Your task to perform on an android device: Add razer nari to the cart on amazon.com, then select checkout. Image 0: 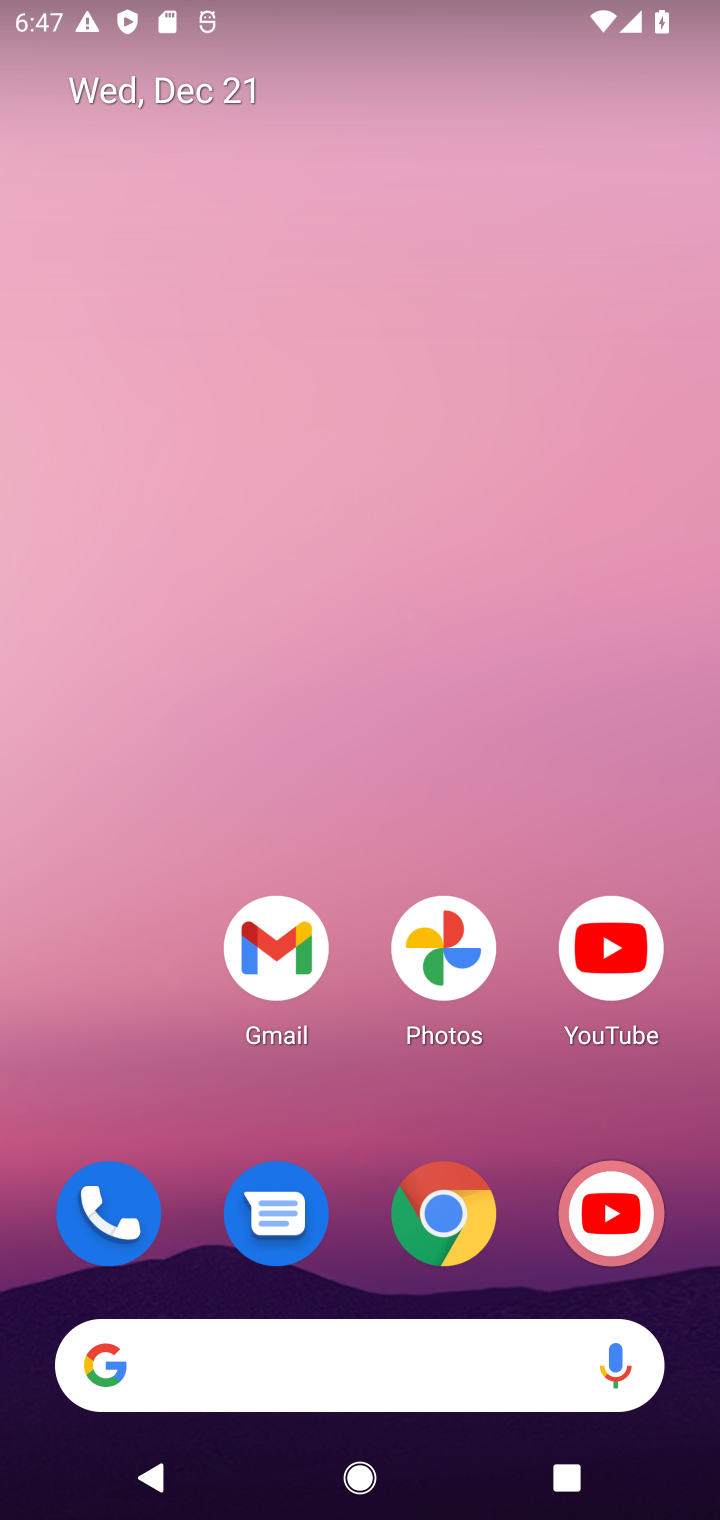
Step 0: click (446, 1219)
Your task to perform on an android device: Add razer nari to the cart on amazon.com, then select checkout. Image 1: 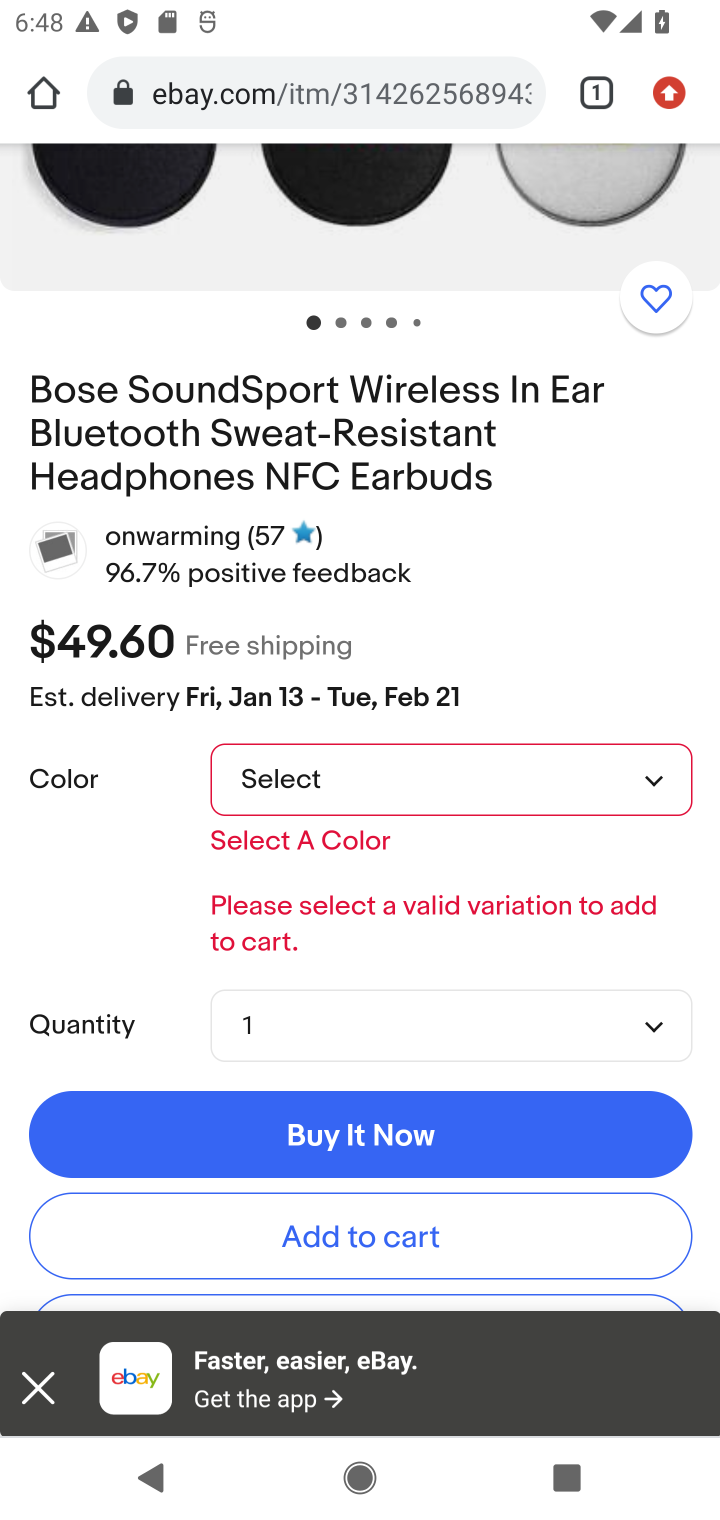
Step 1: click (301, 80)
Your task to perform on an android device: Add razer nari to the cart on amazon.com, then select checkout. Image 2: 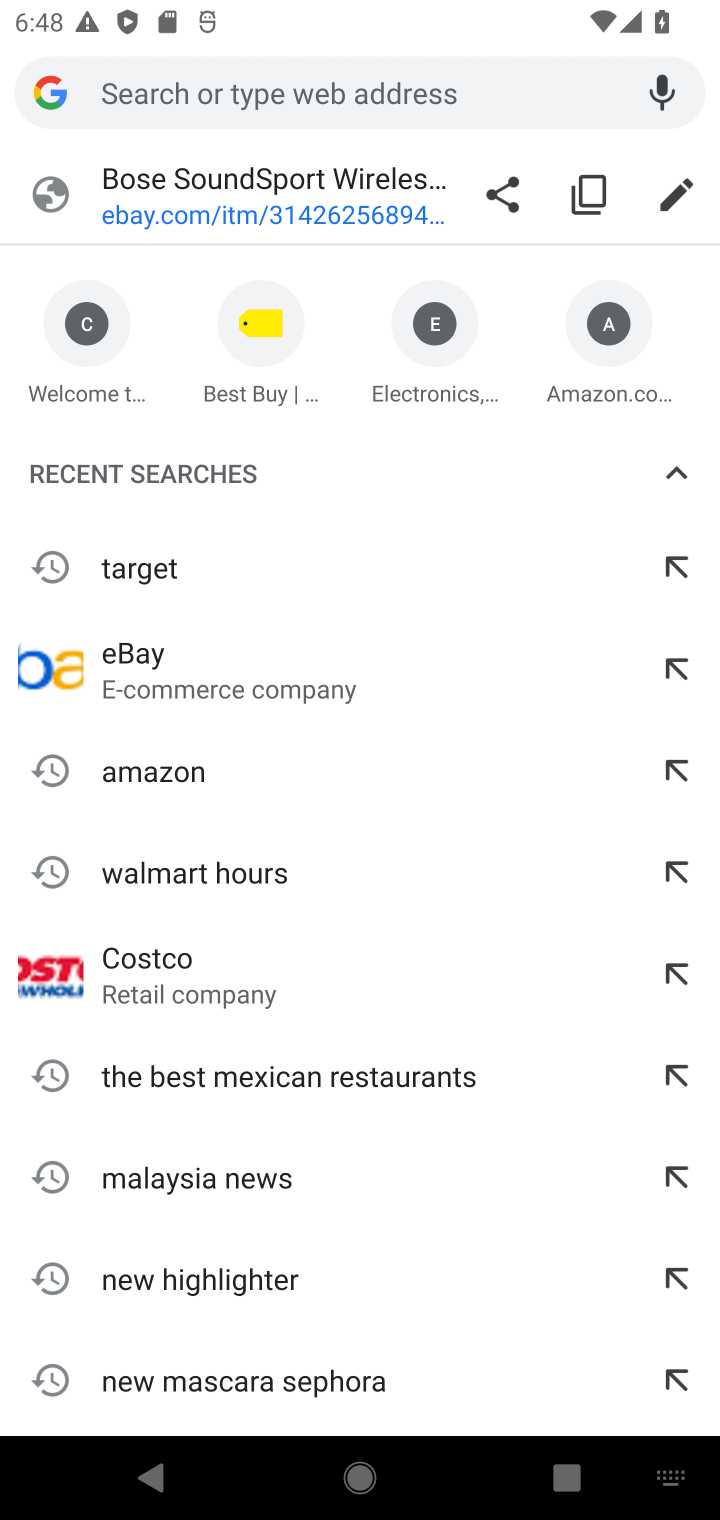
Step 2: type "amazon"
Your task to perform on an android device: Add razer nari to the cart on amazon.com, then select checkout. Image 3: 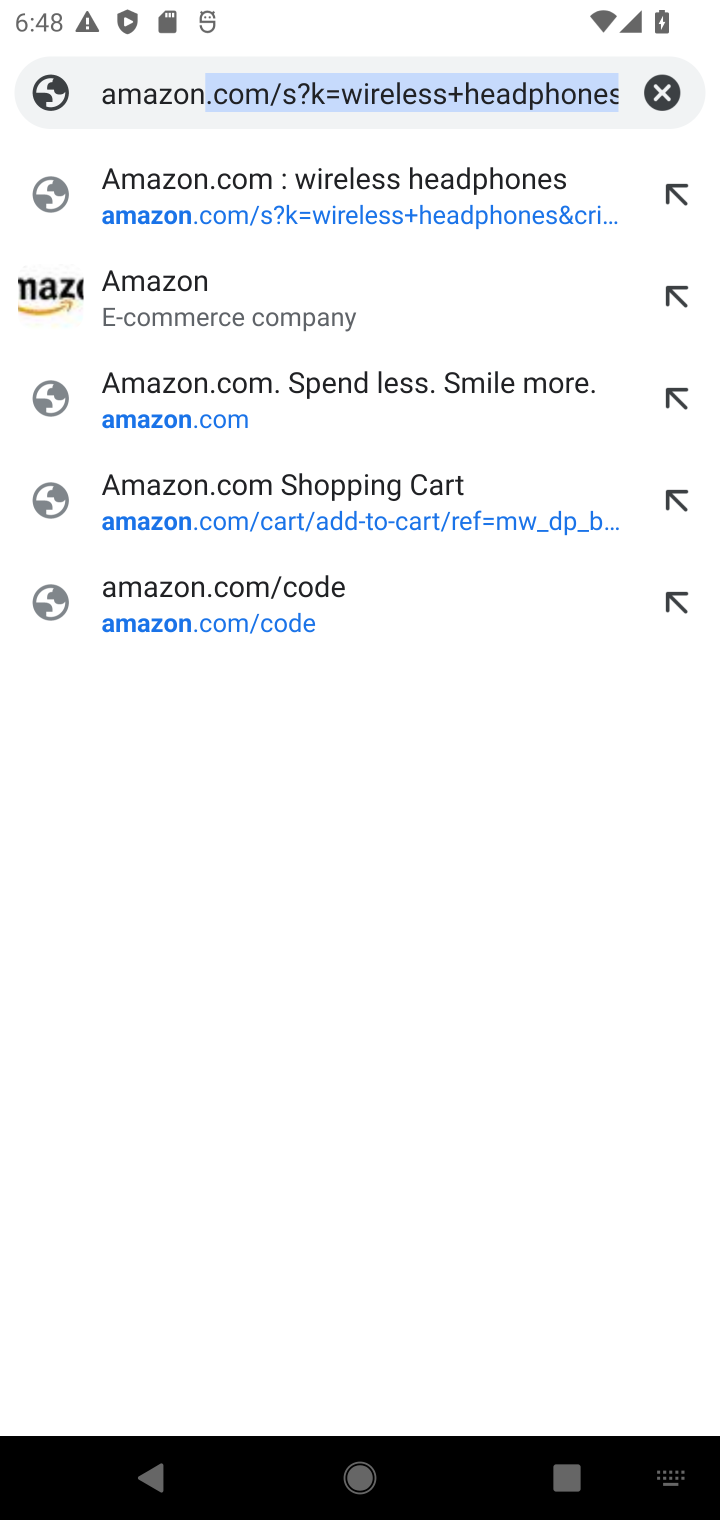
Step 3: click (122, 234)
Your task to perform on an android device: Add razer nari to the cart on amazon.com, then select checkout. Image 4: 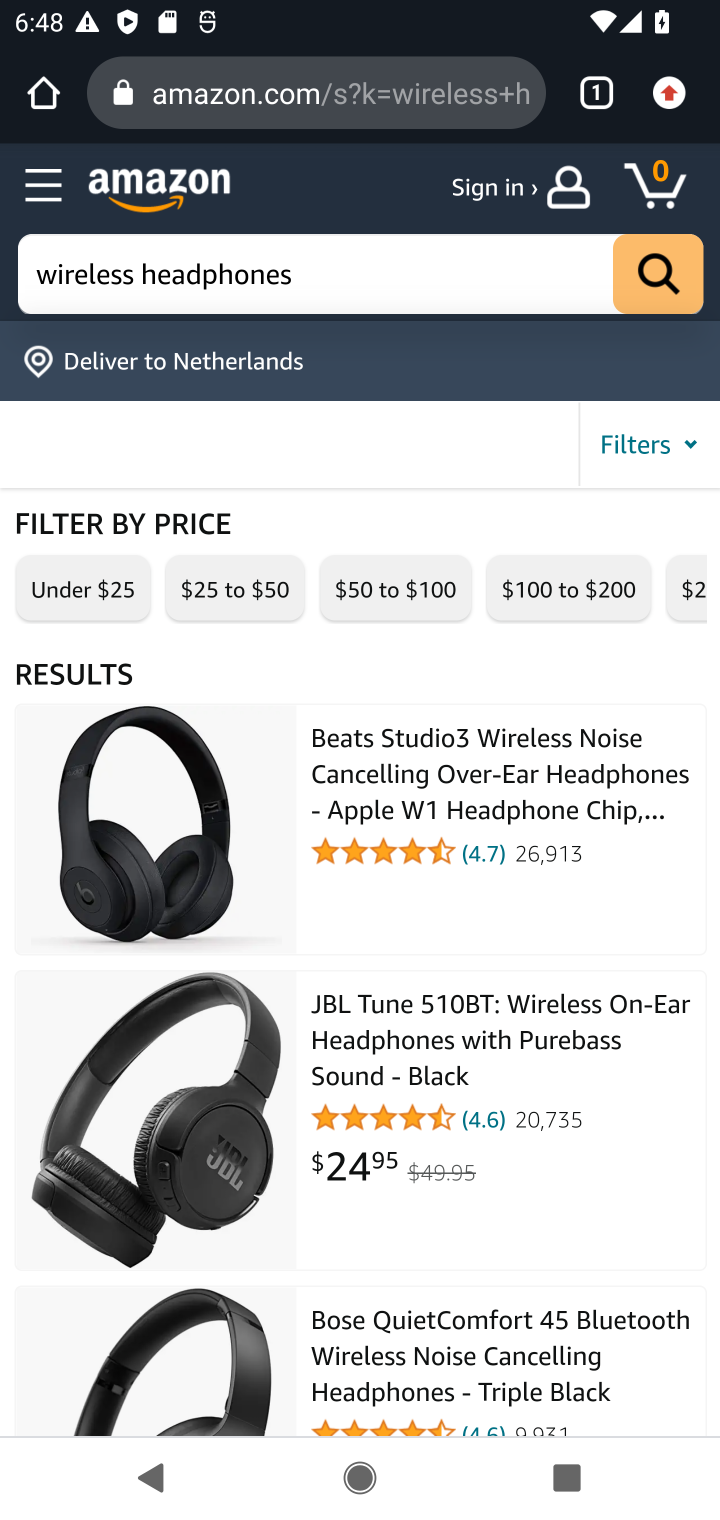
Step 4: click (456, 736)
Your task to perform on an android device: Add razer nari to the cart on amazon.com, then select checkout. Image 5: 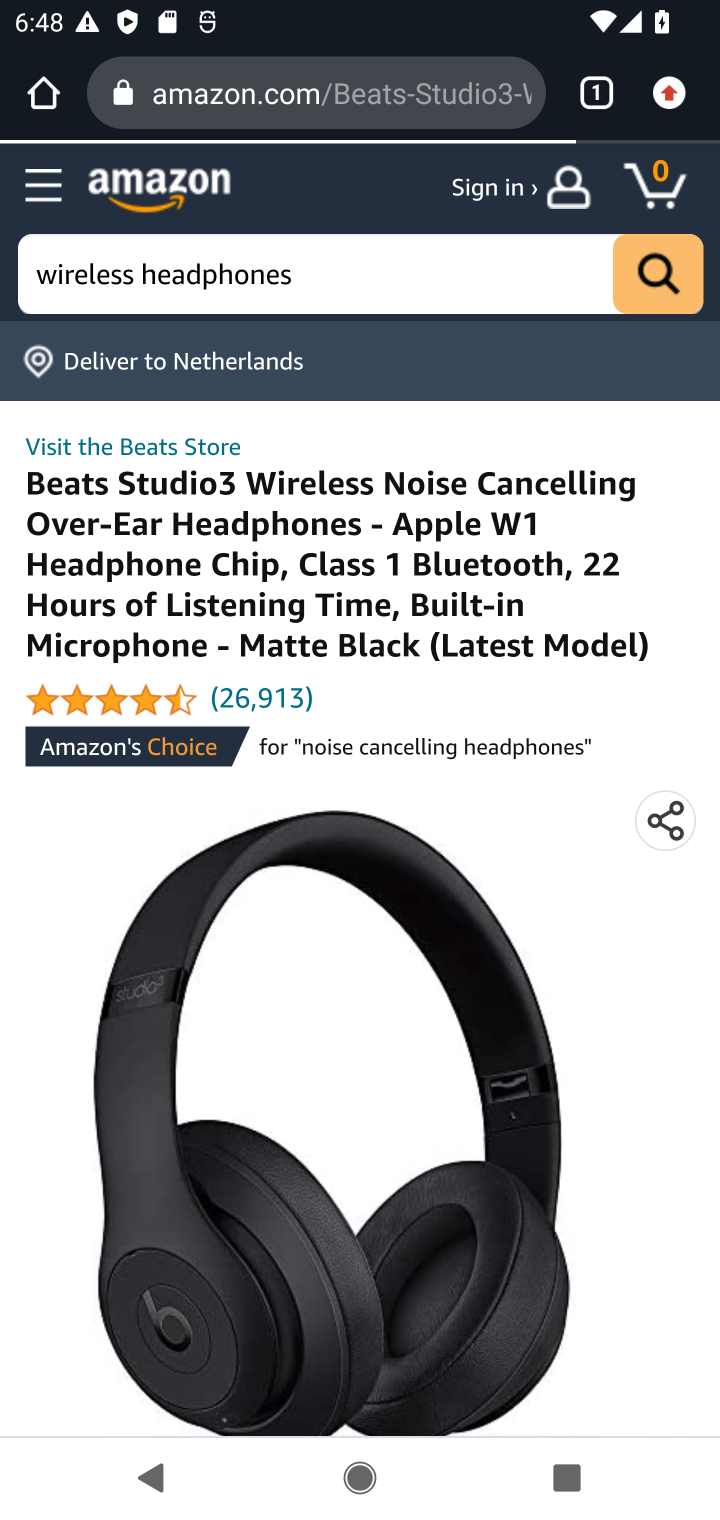
Step 5: drag from (400, 1027) to (469, 249)
Your task to perform on an android device: Add razer nari to the cart on amazon.com, then select checkout. Image 6: 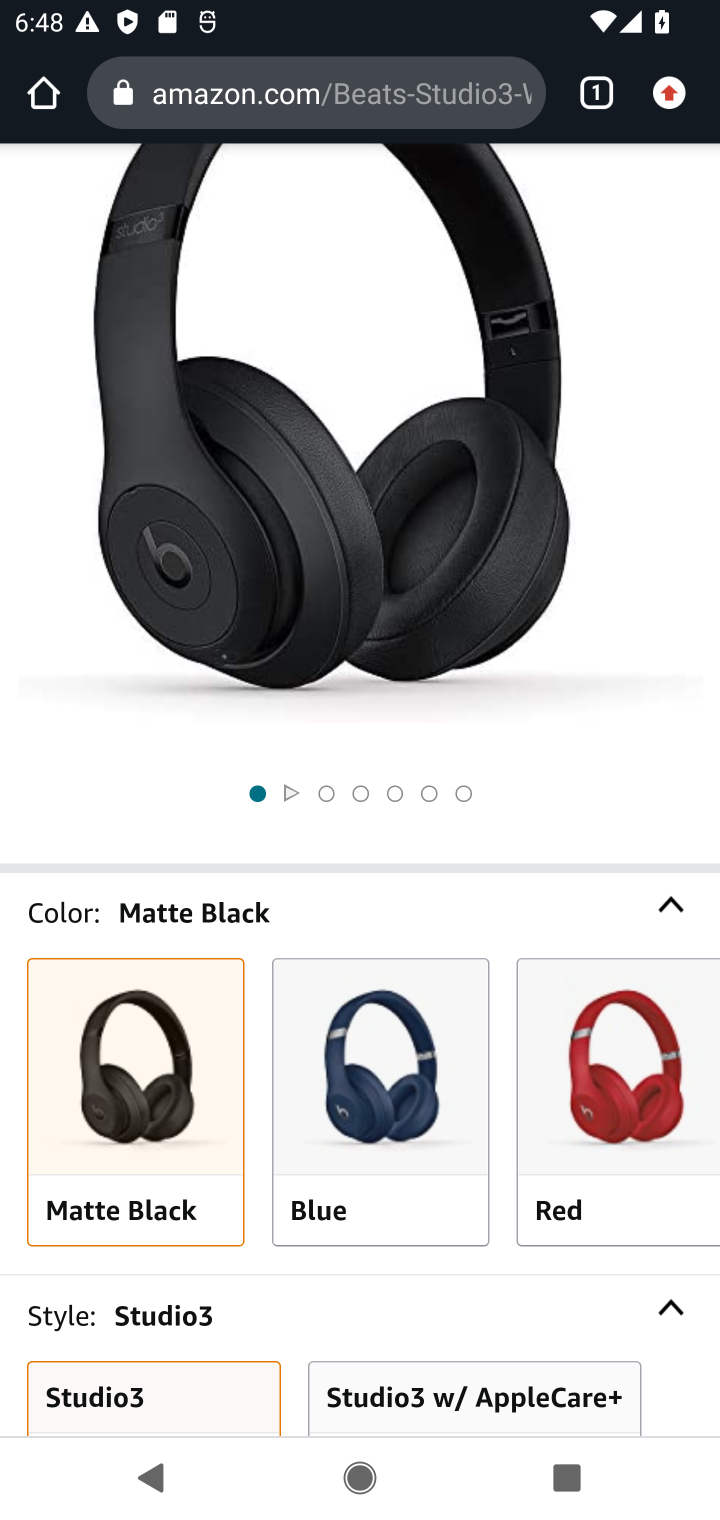
Step 6: drag from (358, 1303) to (490, 325)
Your task to perform on an android device: Add razer nari to the cart on amazon.com, then select checkout. Image 7: 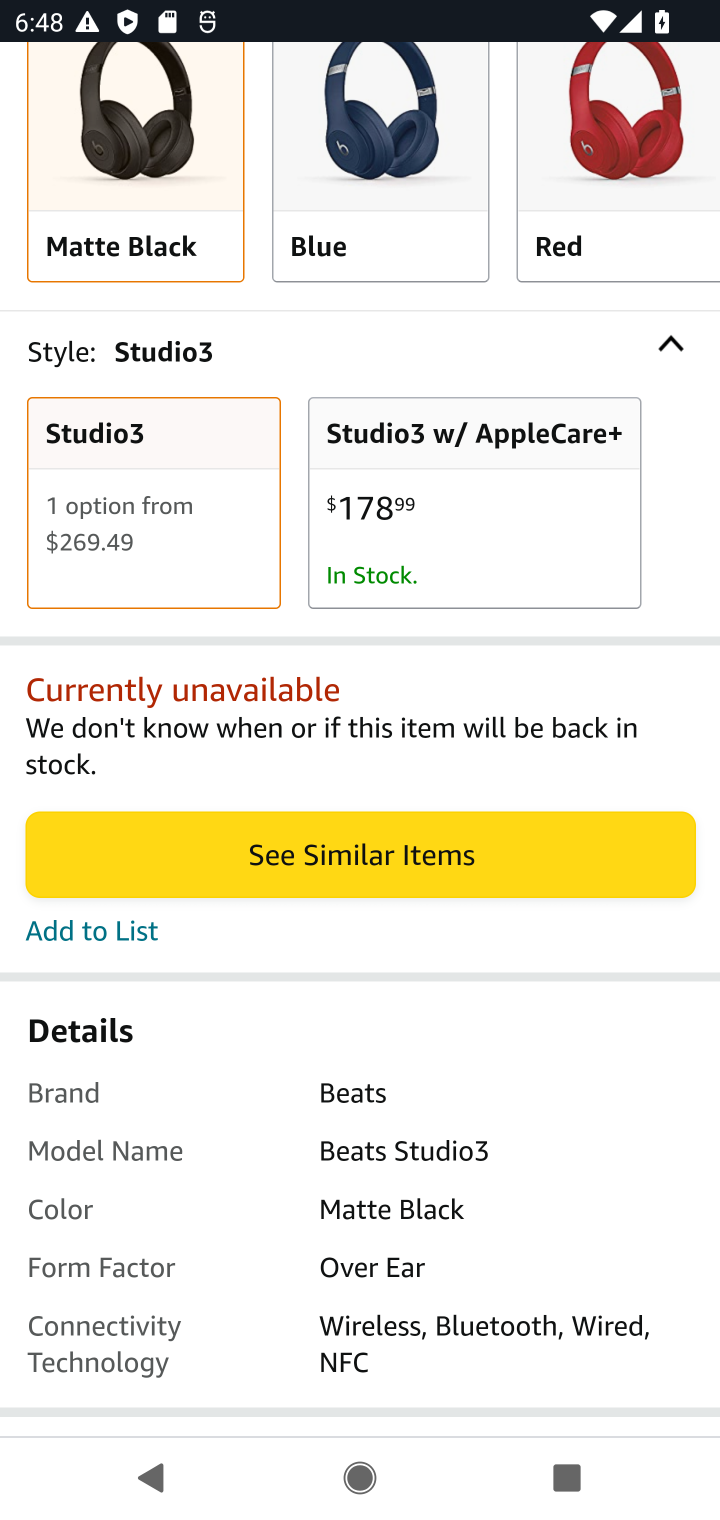
Step 7: click (386, 846)
Your task to perform on an android device: Add razer nari to the cart on amazon.com, then select checkout. Image 8: 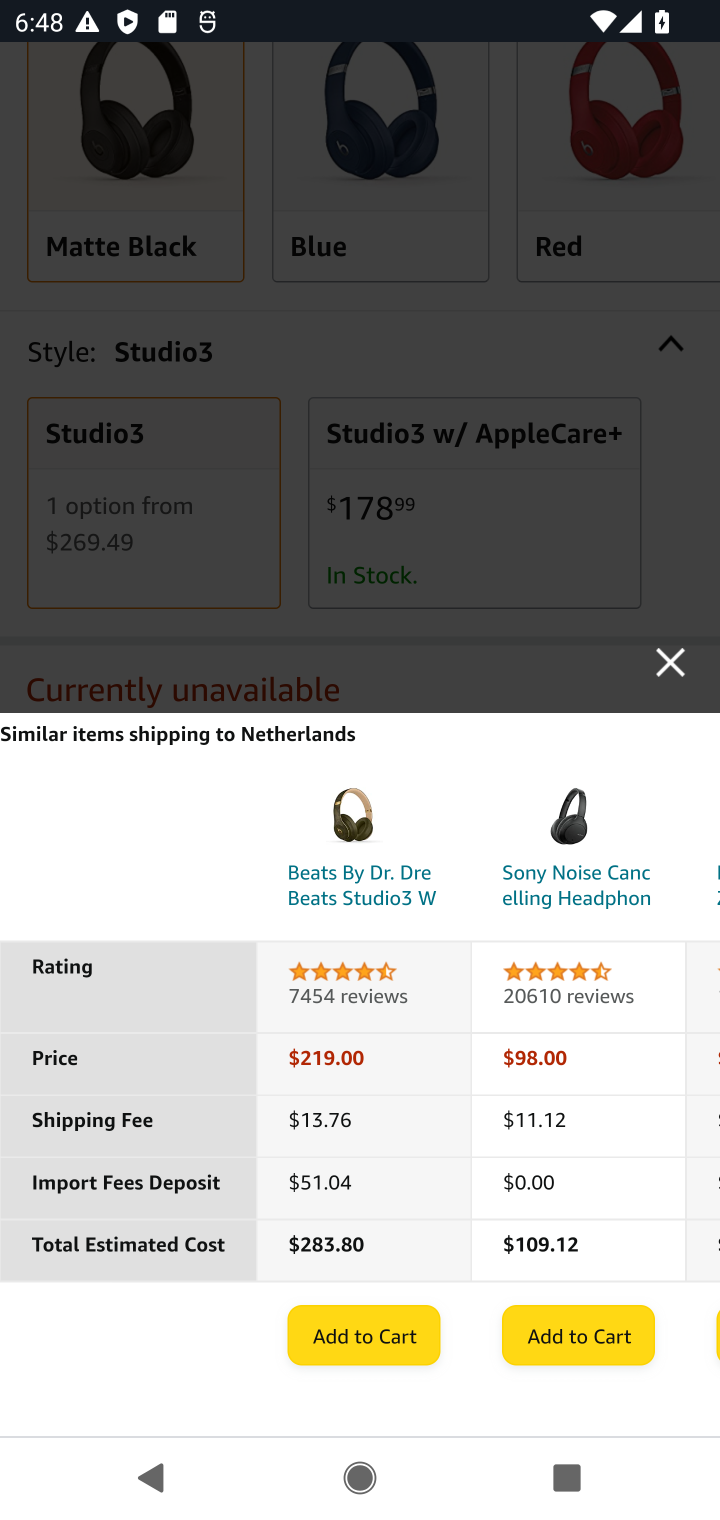
Step 8: click (425, 1326)
Your task to perform on an android device: Add razer nari to the cart on amazon.com, then select checkout. Image 9: 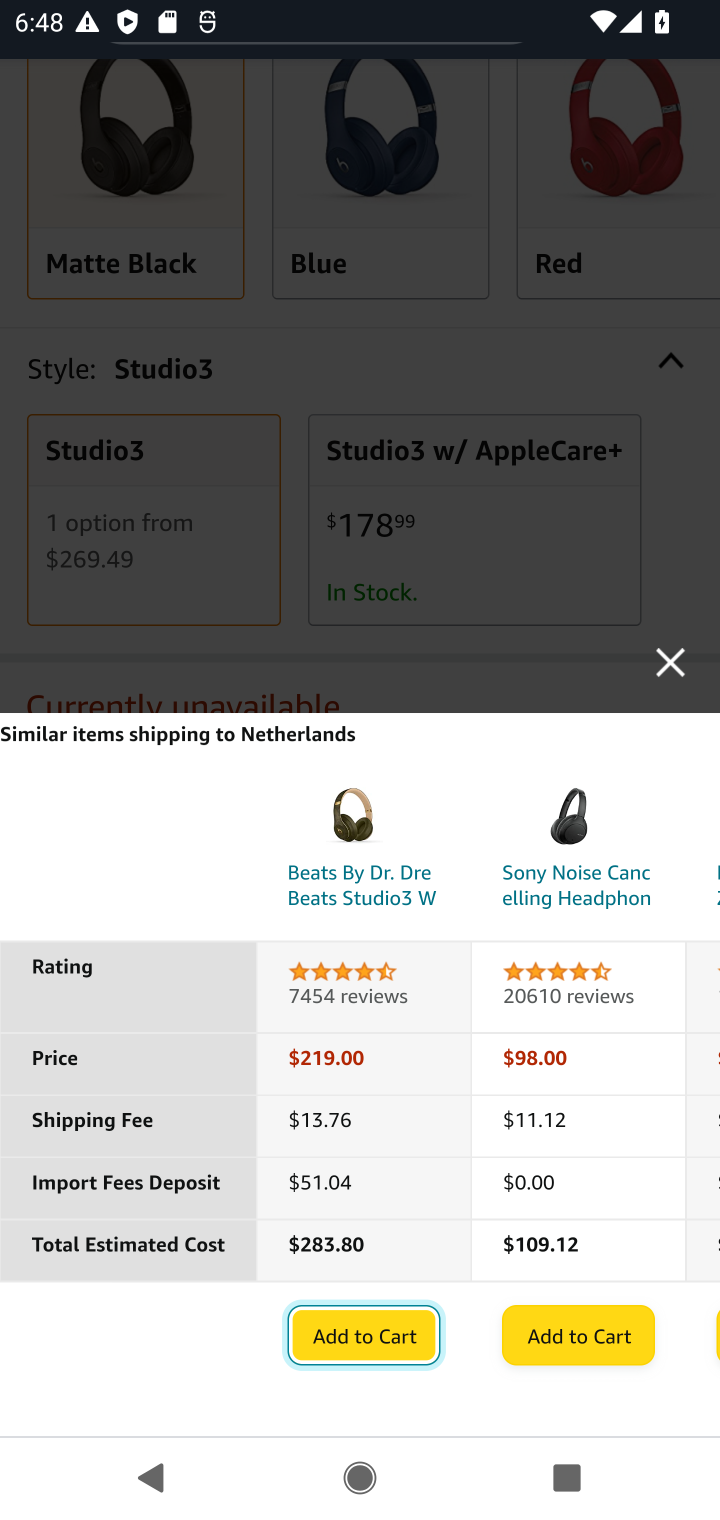
Step 9: task complete